Your task to perform on an android device: open a bookmark in the chrome app Image 0: 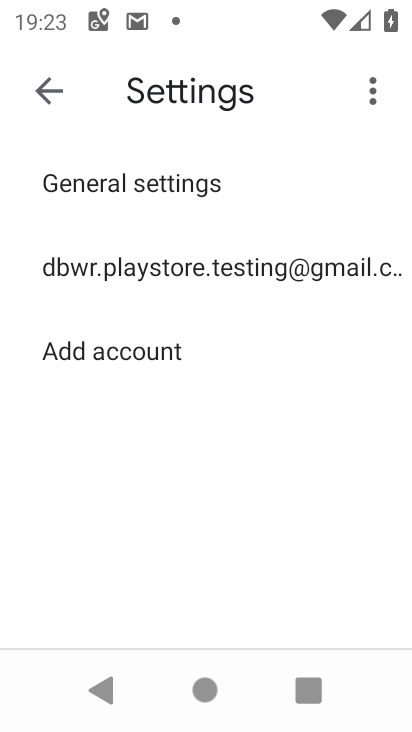
Step 0: press home button
Your task to perform on an android device: open a bookmark in the chrome app Image 1: 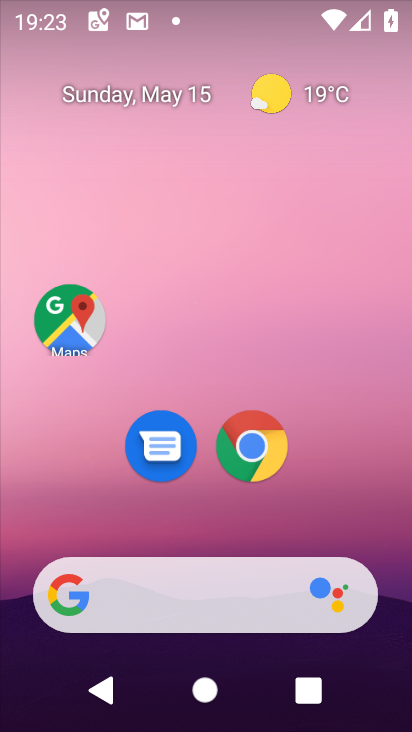
Step 1: drag from (235, 611) to (262, 84)
Your task to perform on an android device: open a bookmark in the chrome app Image 2: 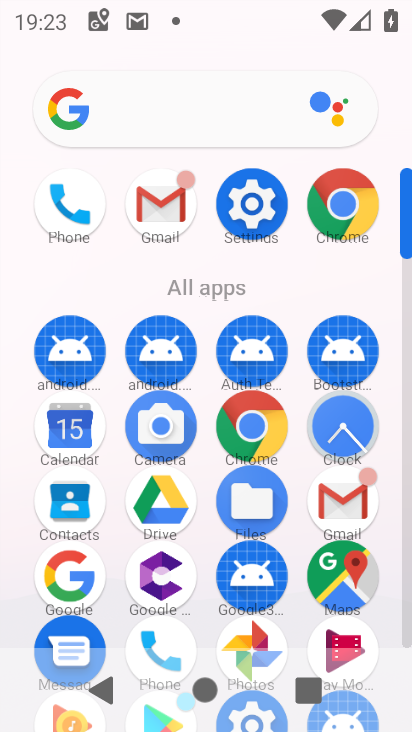
Step 2: click (262, 426)
Your task to perform on an android device: open a bookmark in the chrome app Image 3: 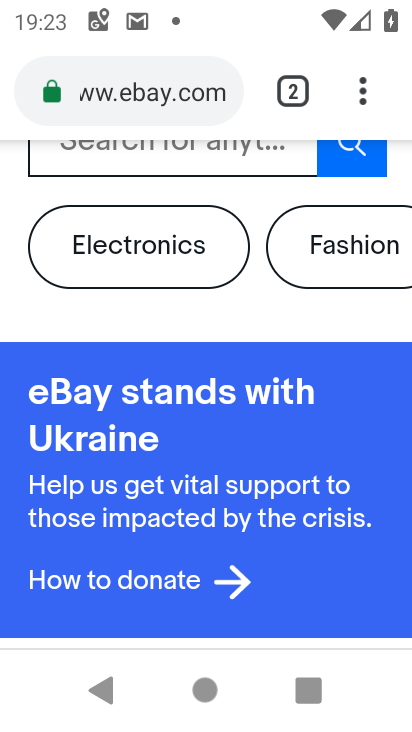
Step 3: click (350, 99)
Your task to perform on an android device: open a bookmark in the chrome app Image 4: 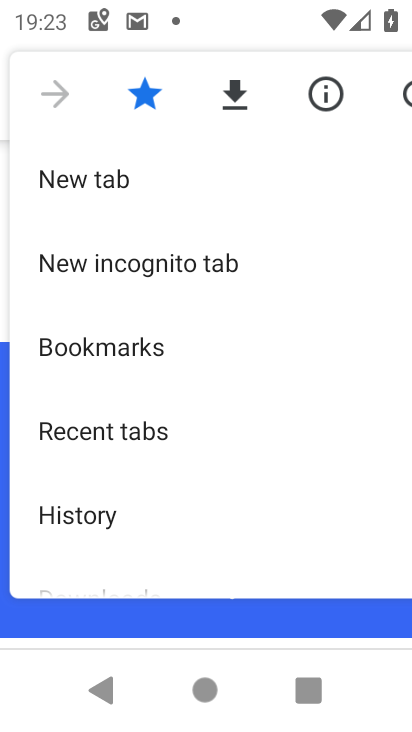
Step 4: click (149, 356)
Your task to perform on an android device: open a bookmark in the chrome app Image 5: 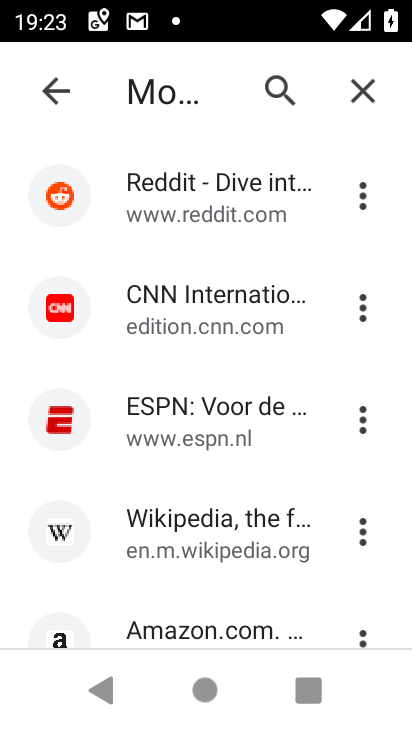
Step 5: click (137, 531)
Your task to perform on an android device: open a bookmark in the chrome app Image 6: 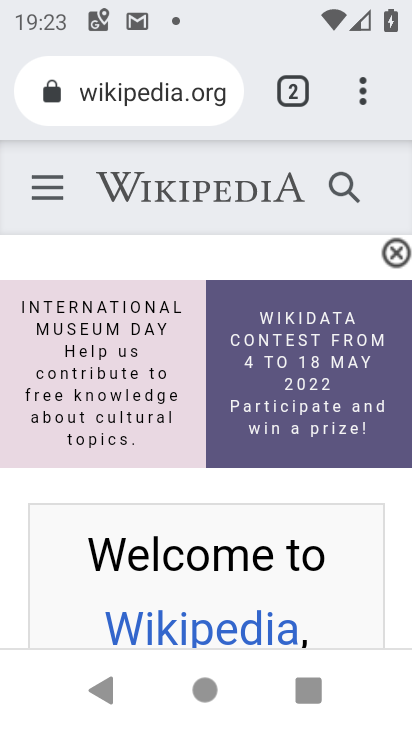
Step 6: task complete